Your task to perform on an android device: open sync settings in chrome Image 0: 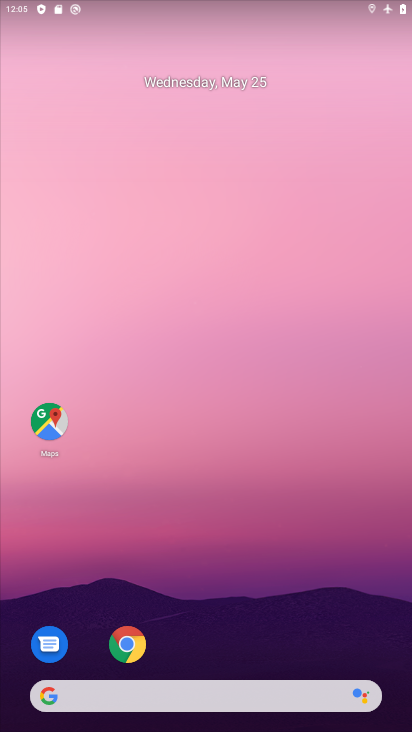
Step 0: click (129, 646)
Your task to perform on an android device: open sync settings in chrome Image 1: 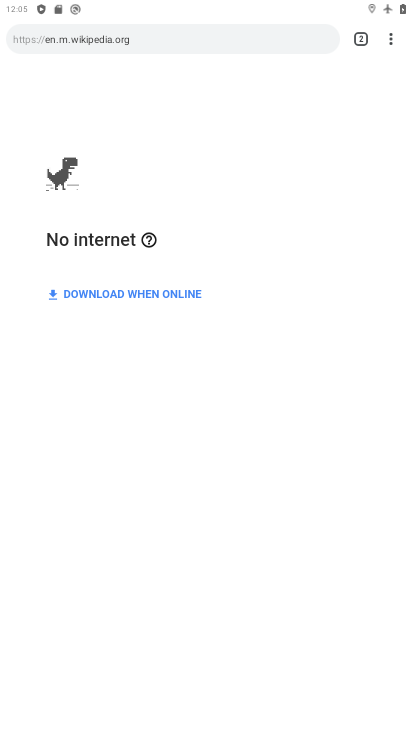
Step 1: click (392, 36)
Your task to perform on an android device: open sync settings in chrome Image 2: 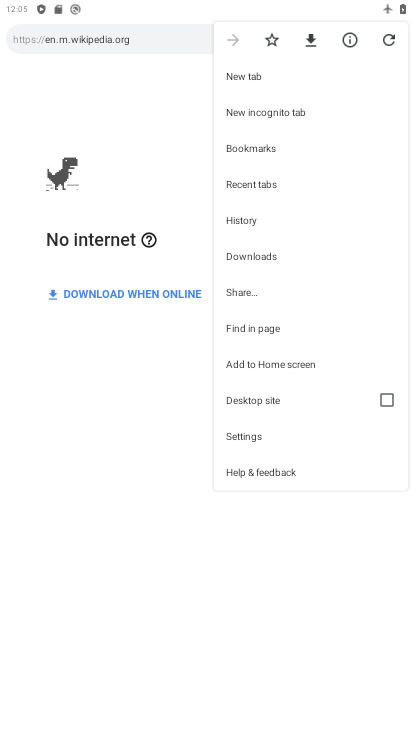
Step 2: click (246, 431)
Your task to perform on an android device: open sync settings in chrome Image 3: 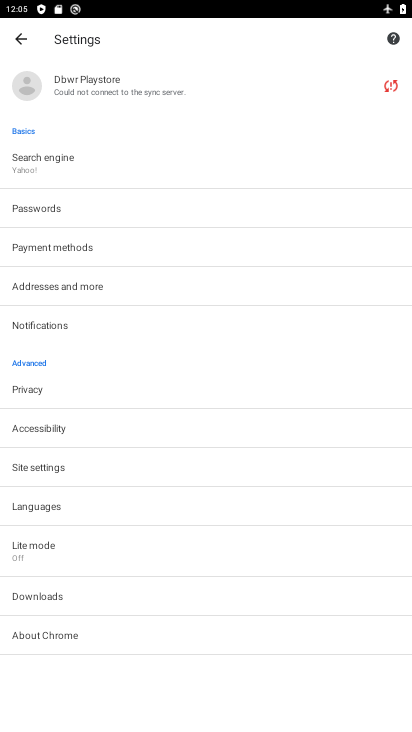
Step 3: click (103, 79)
Your task to perform on an android device: open sync settings in chrome Image 4: 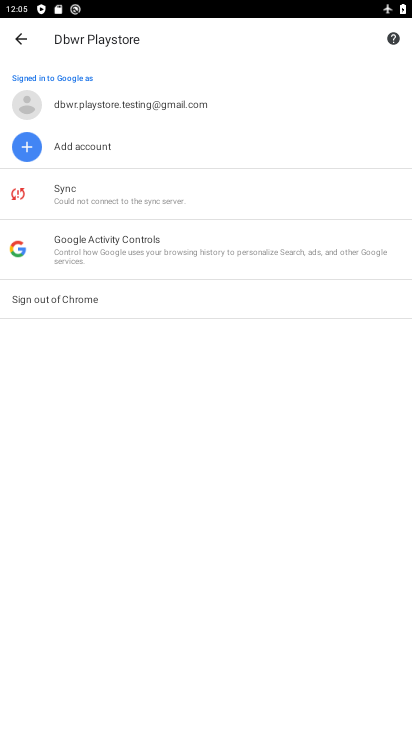
Step 4: click (74, 183)
Your task to perform on an android device: open sync settings in chrome Image 5: 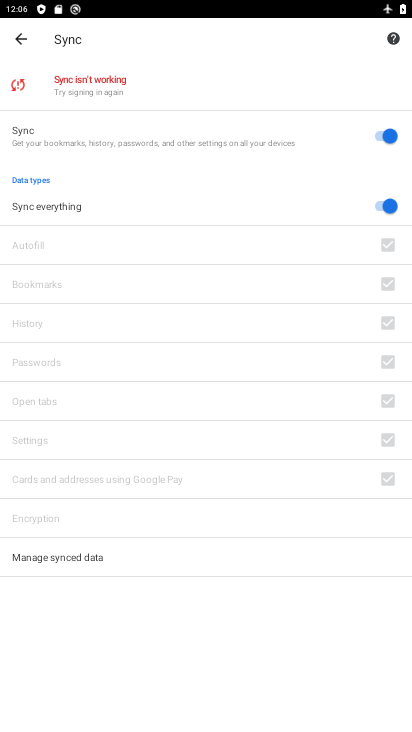
Step 5: task complete